Your task to perform on an android device: set the timer Image 0: 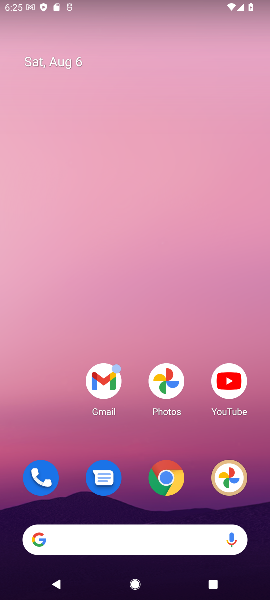
Step 0: drag from (140, 117) to (150, 11)
Your task to perform on an android device: set the timer Image 1: 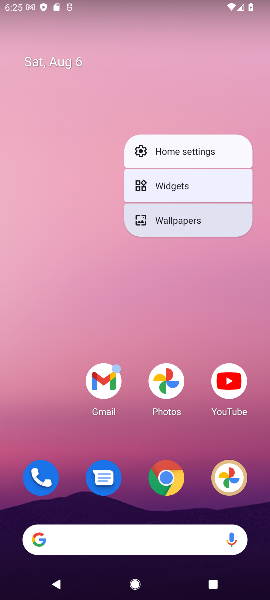
Step 1: drag from (140, 297) to (140, 80)
Your task to perform on an android device: set the timer Image 2: 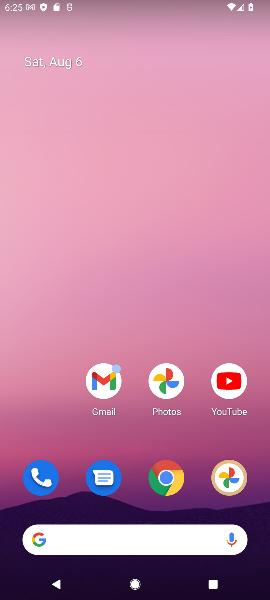
Step 2: drag from (144, 500) to (165, 99)
Your task to perform on an android device: set the timer Image 3: 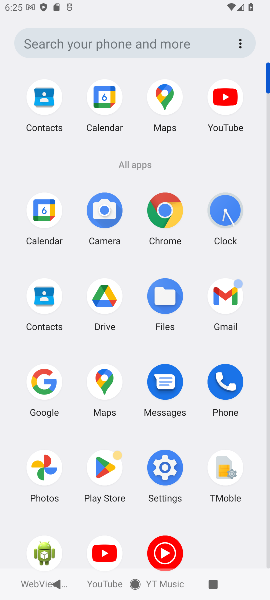
Step 3: click (232, 223)
Your task to perform on an android device: set the timer Image 4: 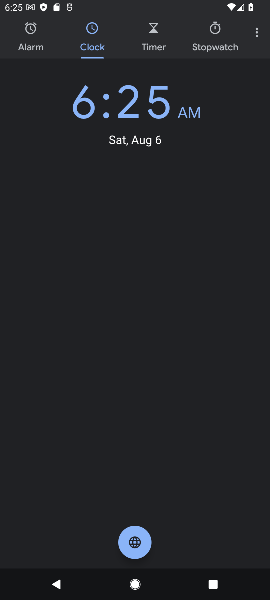
Step 4: click (149, 42)
Your task to perform on an android device: set the timer Image 5: 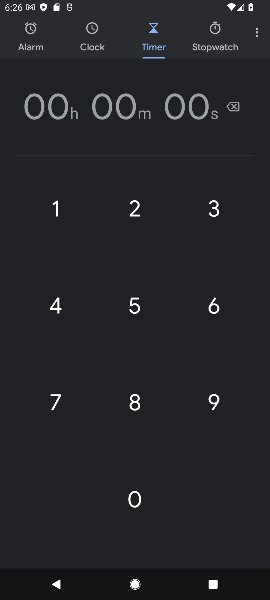
Step 5: click (135, 405)
Your task to perform on an android device: set the timer Image 6: 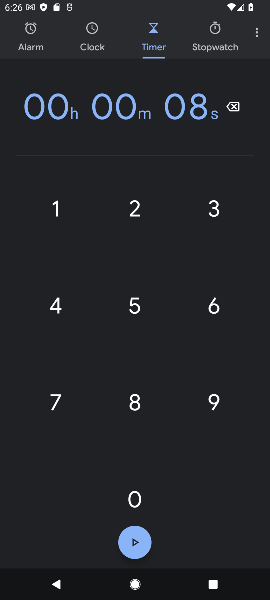
Step 6: click (59, 404)
Your task to perform on an android device: set the timer Image 7: 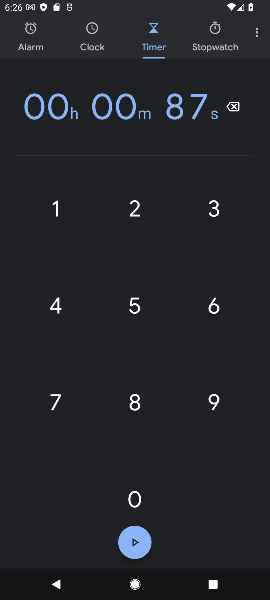
Step 7: click (134, 313)
Your task to perform on an android device: set the timer Image 8: 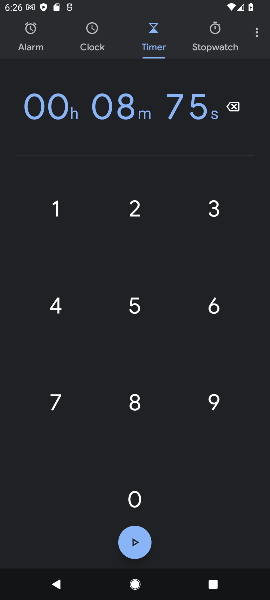
Step 8: click (136, 552)
Your task to perform on an android device: set the timer Image 9: 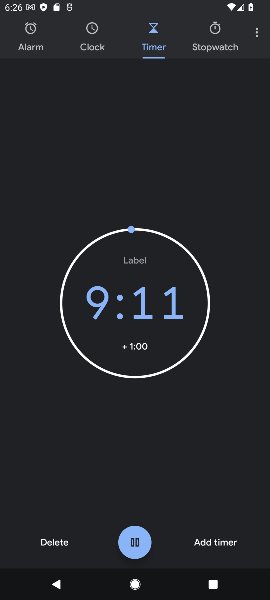
Step 9: task complete